Your task to perform on an android device: Search for pizza restaurants on Maps Image 0: 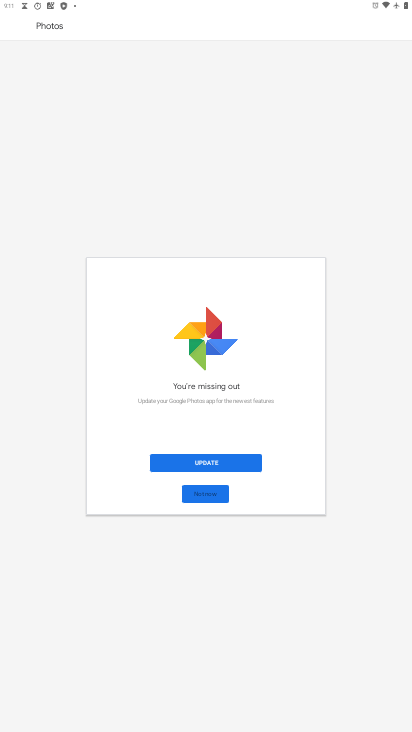
Step 0: press home button
Your task to perform on an android device: Search for pizza restaurants on Maps Image 1: 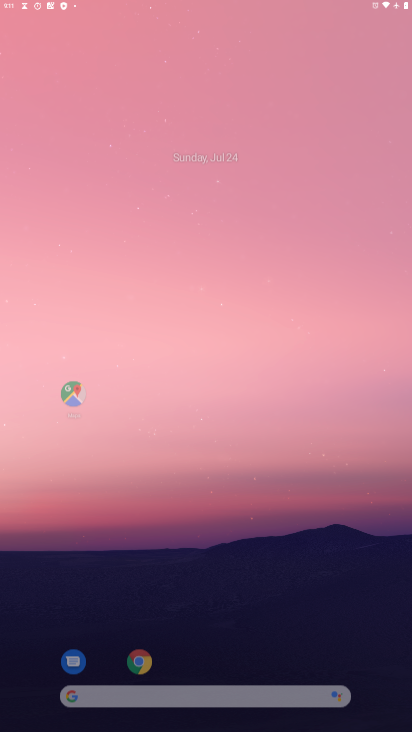
Step 1: drag from (228, 604) to (262, 98)
Your task to perform on an android device: Search for pizza restaurants on Maps Image 2: 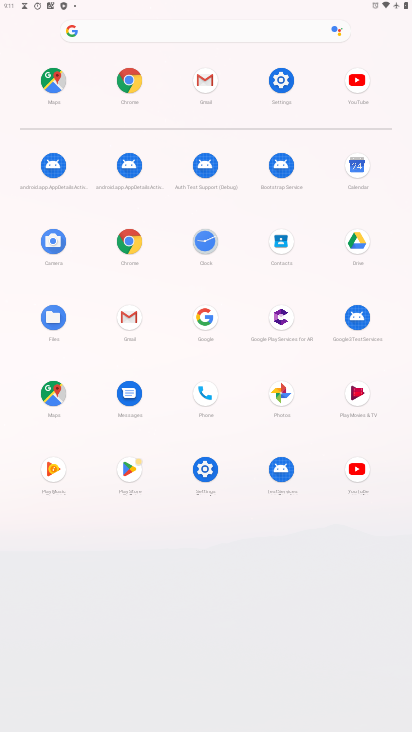
Step 2: click (52, 389)
Your task to perform on an android device: Search for pizza restaurants on Maps Image 3: 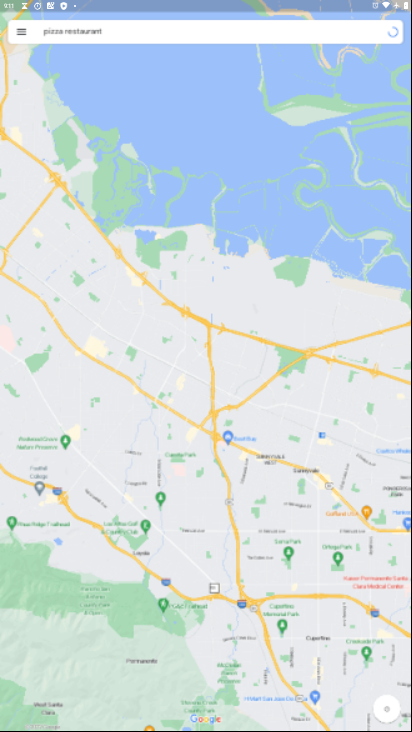
Step 3: click (156, 36)
Your task to perform on an android device: Search for pizza restaurants on Maps Image 4: 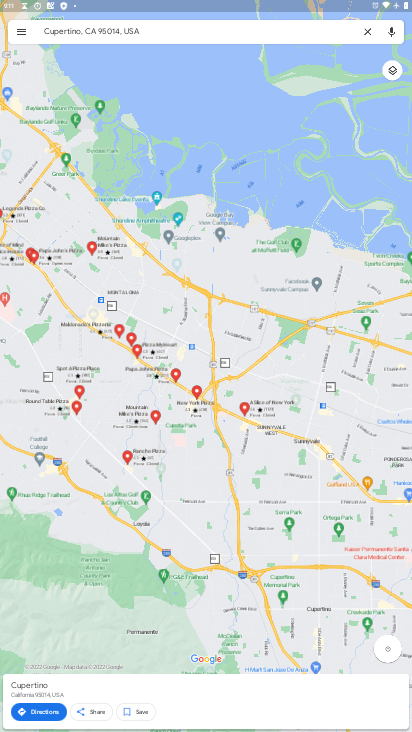
Step 4: click (368, 33)
Your task to perform on an android device: Search for pizza restaurants on Maps Image 5: 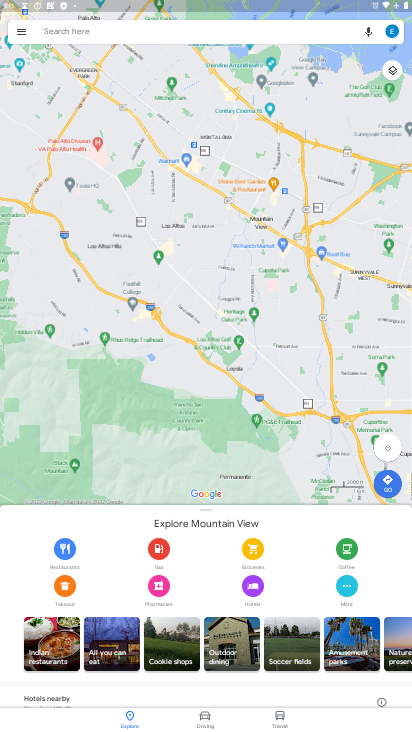
Step 5: click (127, 26)
Your task to perform on an android device: Search for pizza restaurants on Maps Image 6: 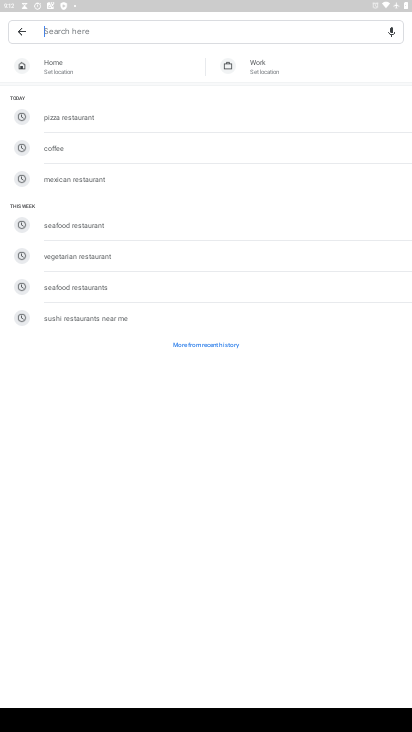
Step 6: type "pizza restaurants"
Your task to perform on an android device: Search for pizza restaurants on Maps Image 7: 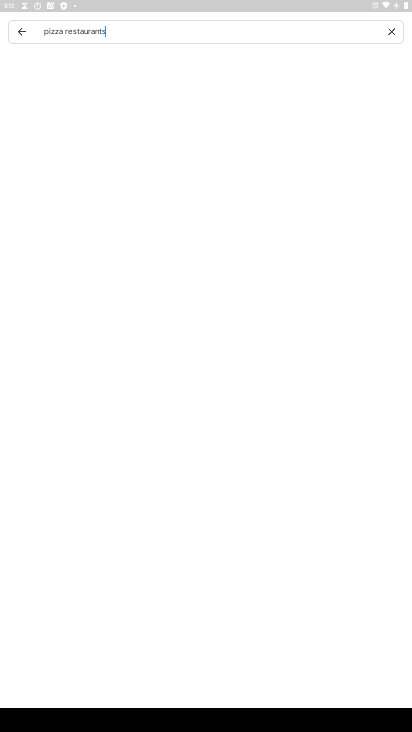
Step 7: type ""
Your task to perform on an android device: Search for pizza restaurants on Maps Image 8: 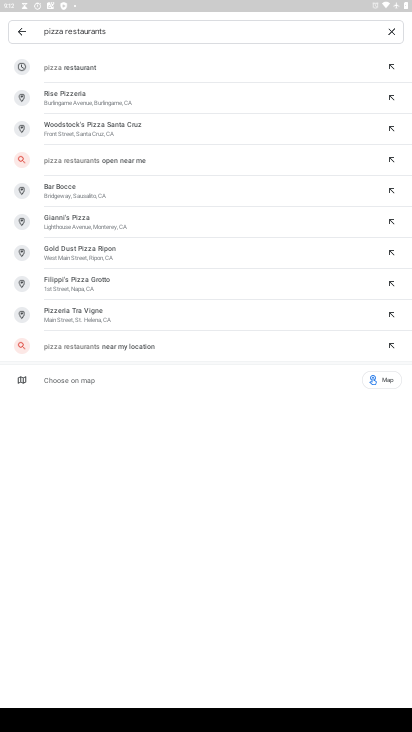
Step 8: click (91, 67)
Your task to perform on an android device: Search for pizza restaurants on Maps Image 9: 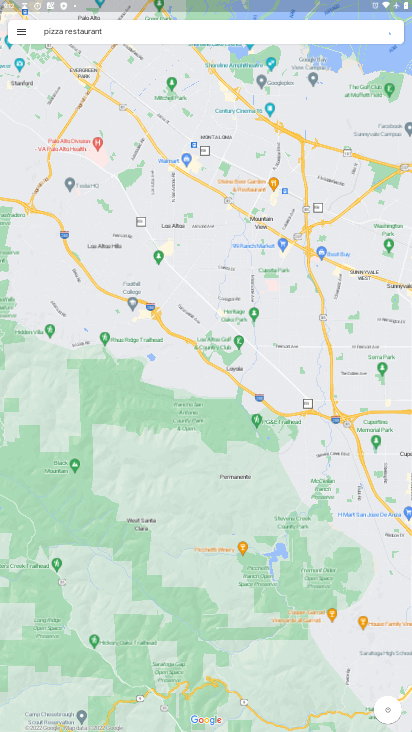
Step 9: task complete